Your task to perform on an android device: turn on improve location accuracy Image 0: 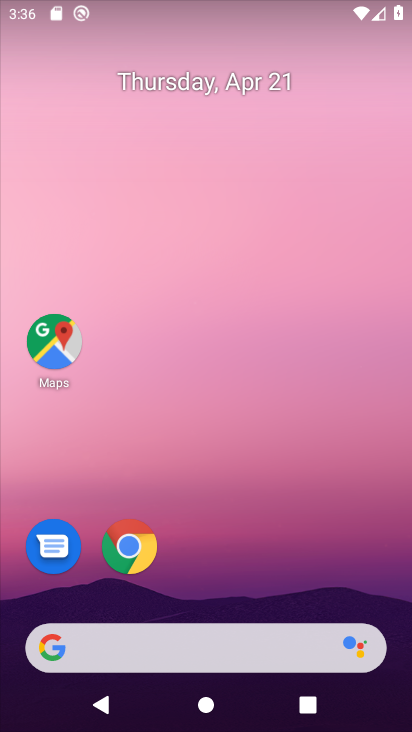
Step 0: drag from (266, 557) to (275, 208)
Your task to perform on an android device: turn on improve location accuracy Image 1: 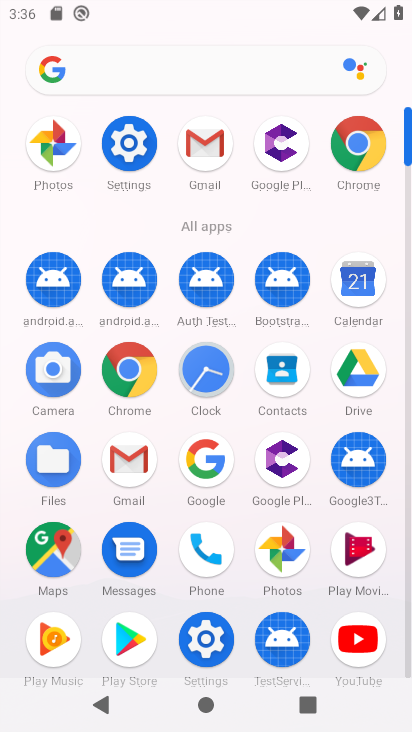
Step 1: click (214, 628)
Your task to perform on an android device: turn on improve location accuracy Image 2: 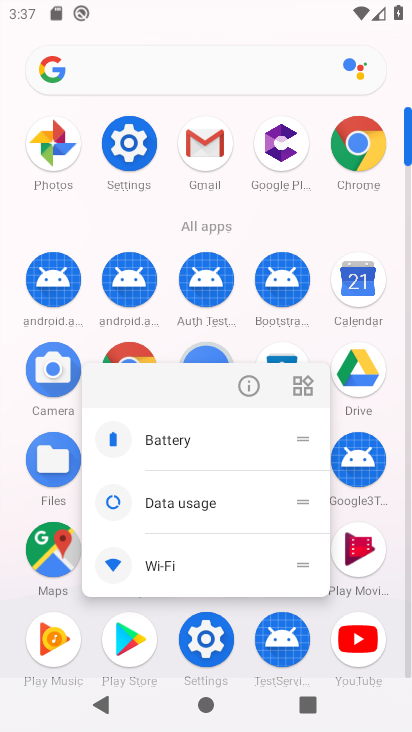
Step 2: click (210, 634)
Your task to perform on an android device: turn on improve location accuracy Image 3: 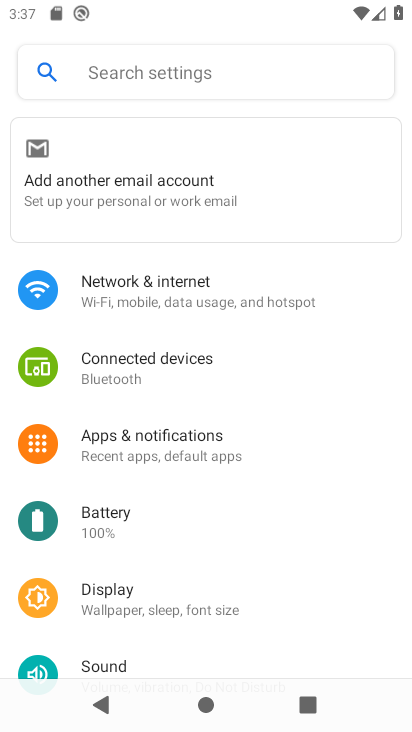
Step 3: drag from (217, 466) to (232, 231)
Your task to perform on an android device: turn on improve location accuracy Image 4: 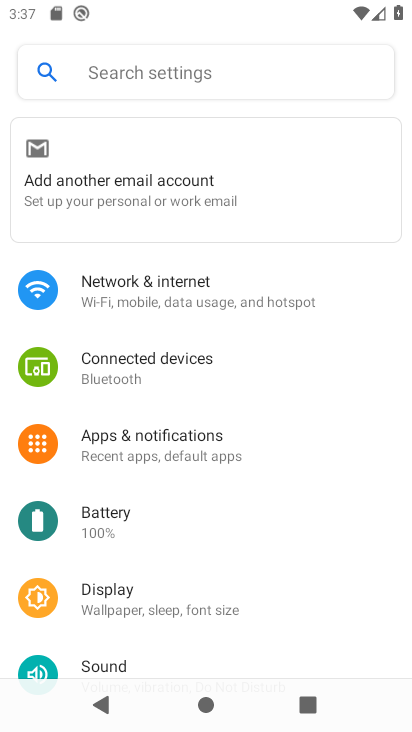
Step 4: drag from (166, 608) to (195, 99)
Your task to perform on an android device: turn on improve location accuracy Image 5: 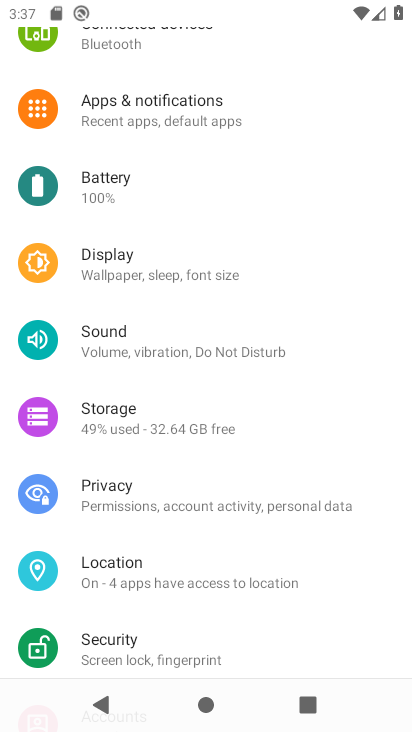
Step 5: click (126, 548)
Your task to perform on an android device: turn on improve location accuracy Image 6: 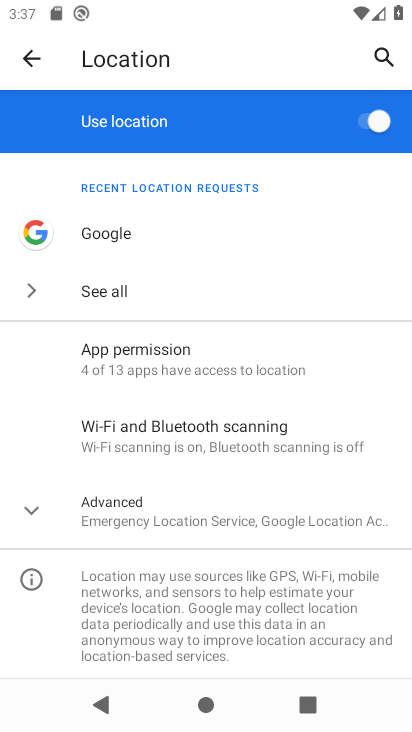
Step 6: click (123, 528)
Your task to perform on an android device: turn on improve location accuracy Image 7: 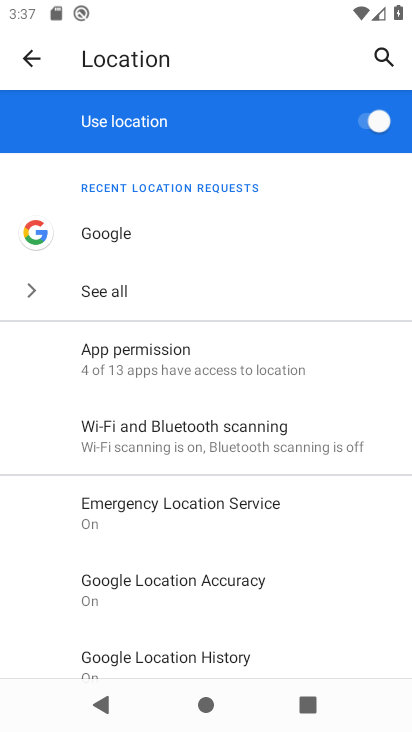
Step 7: click (106, 592)
Your task to perform on an android device: turn on improve location accuracy Image 8: 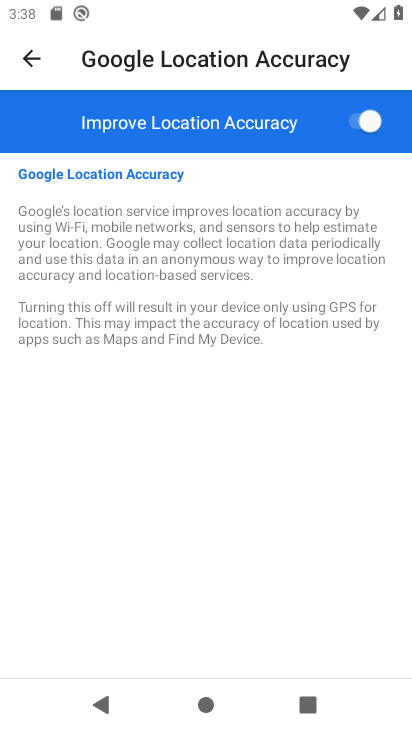
Step 8: task complete